Your task to perform on an android device: What's the news in Guyana? Image 0: 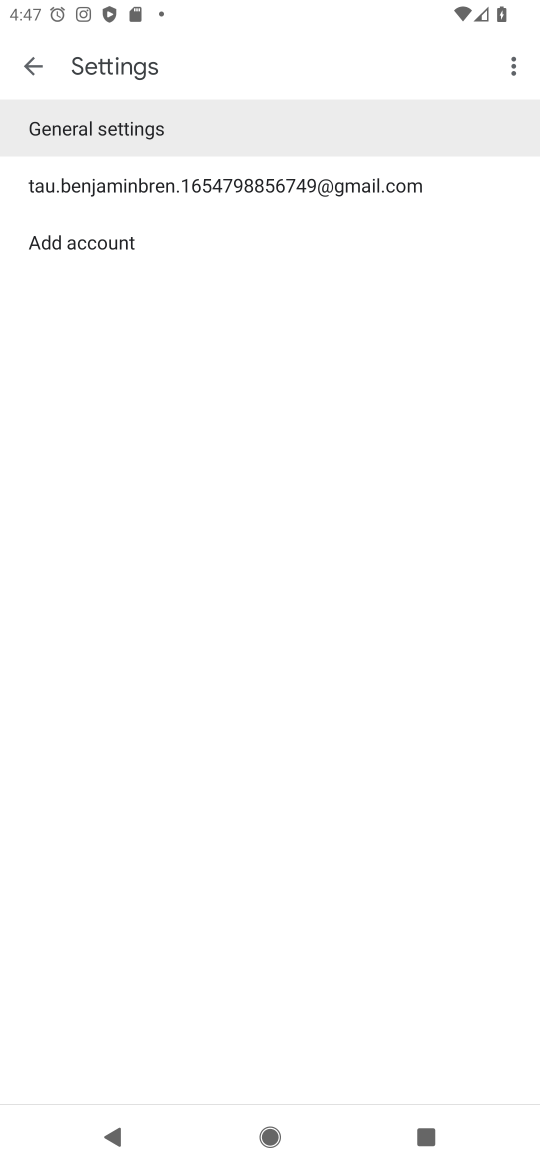
Step 0: press home button
Your task to perform on an android device: What's the news in Guyana? Image 1: 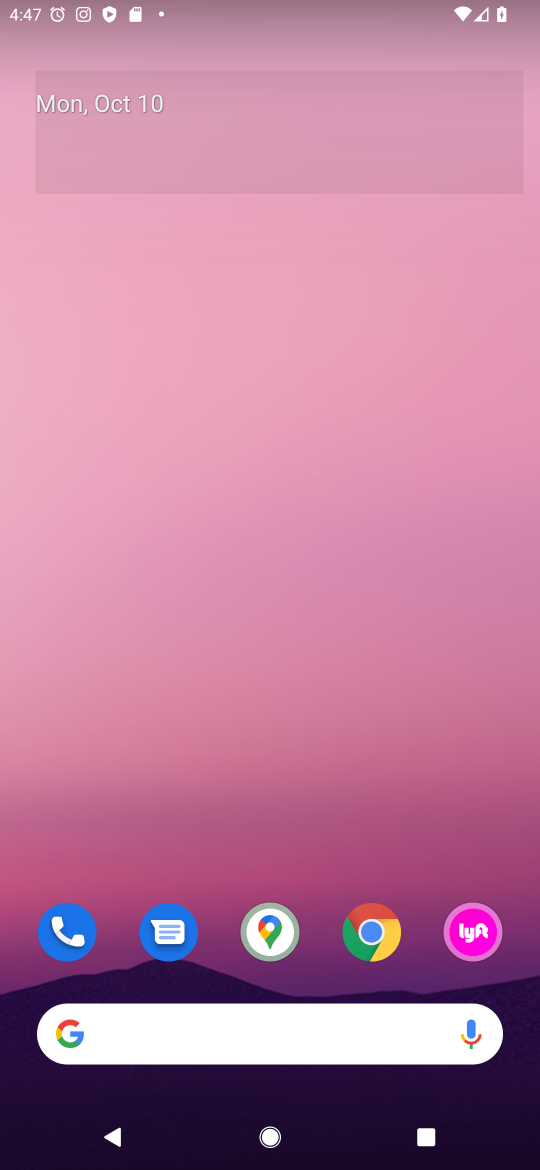
Step 1: click (269, 1044)
Your task to perform on an android device: What's the news in Guyana? Image 2: 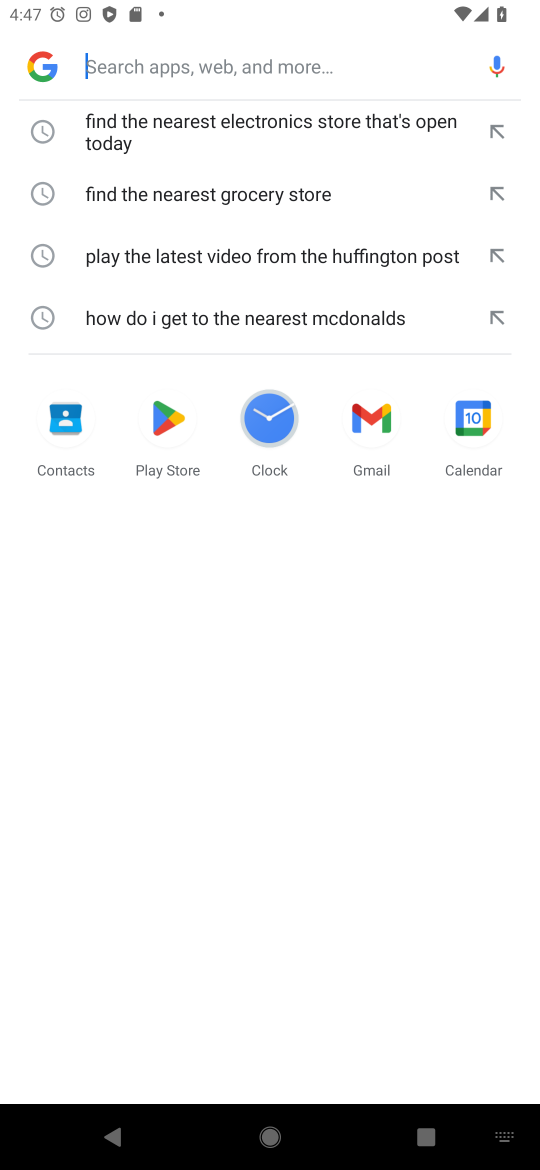
Step 2: press enter
Your task to perform on an android device: What's the news in Guyana? Image 3: 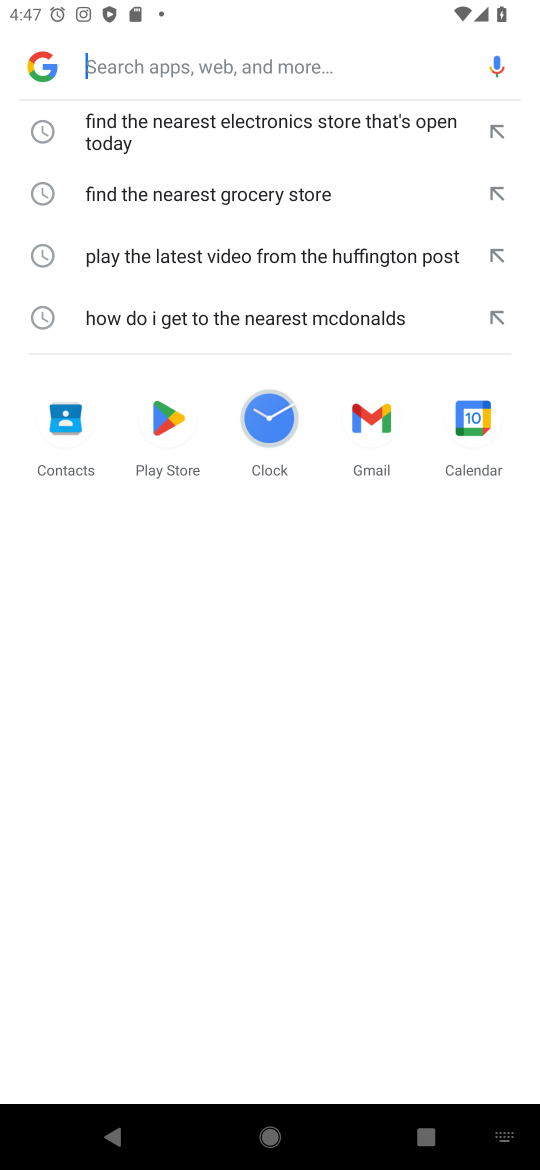
Step 3: type "What's the news in Guyana?"
Your task to perform on an android device: What's the news in Guyana? Image 4: 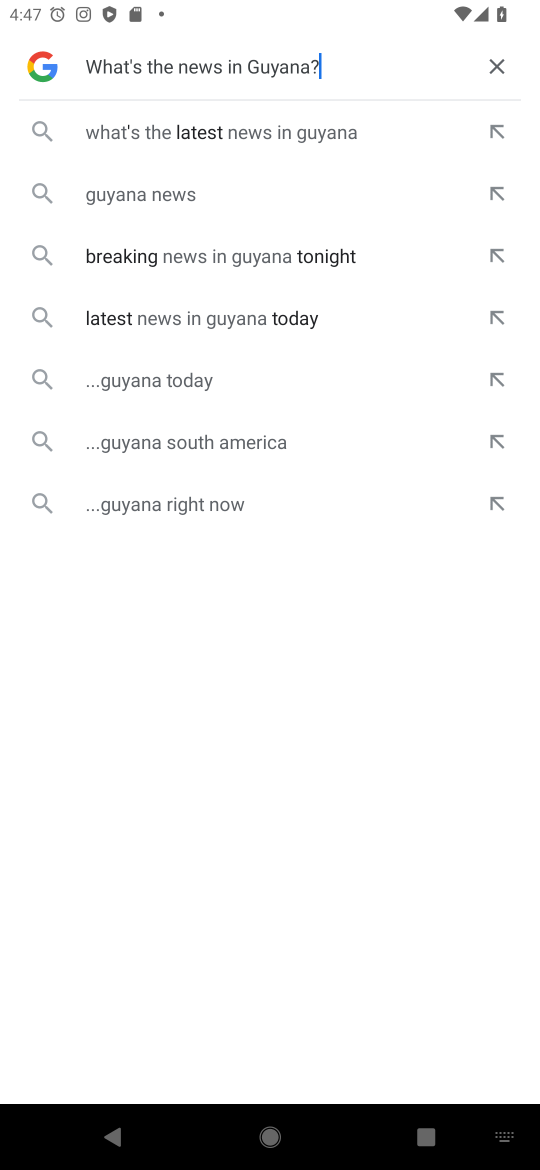
Step 4: press enter
Your task to perform on an android device: What's the news in Guyana? Image 5: 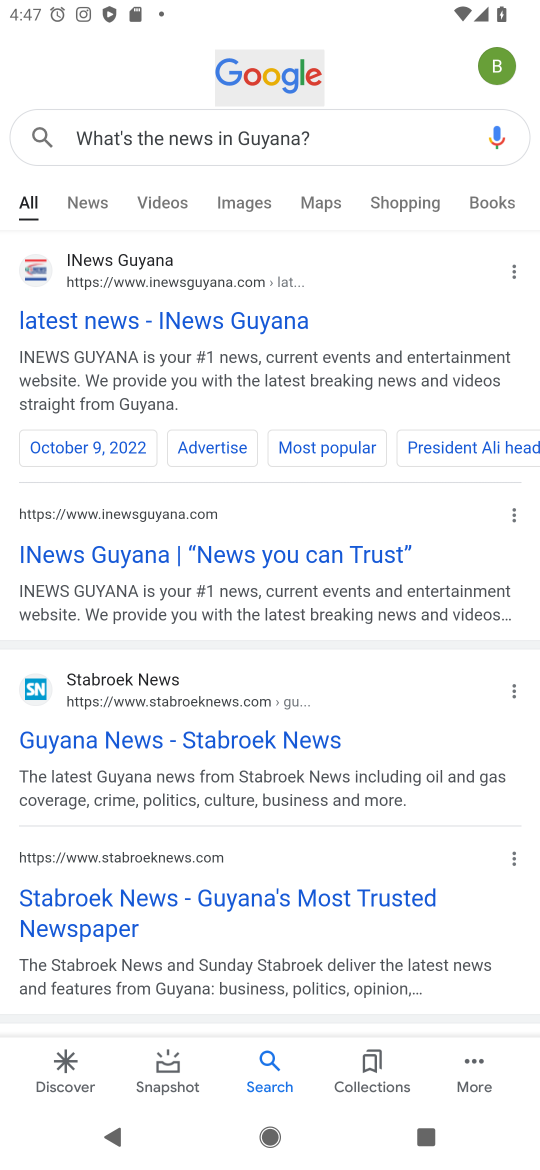
Step 5: click (269, 324)
Your task to perform on an android device: What's the news in Guyana? Image 6: 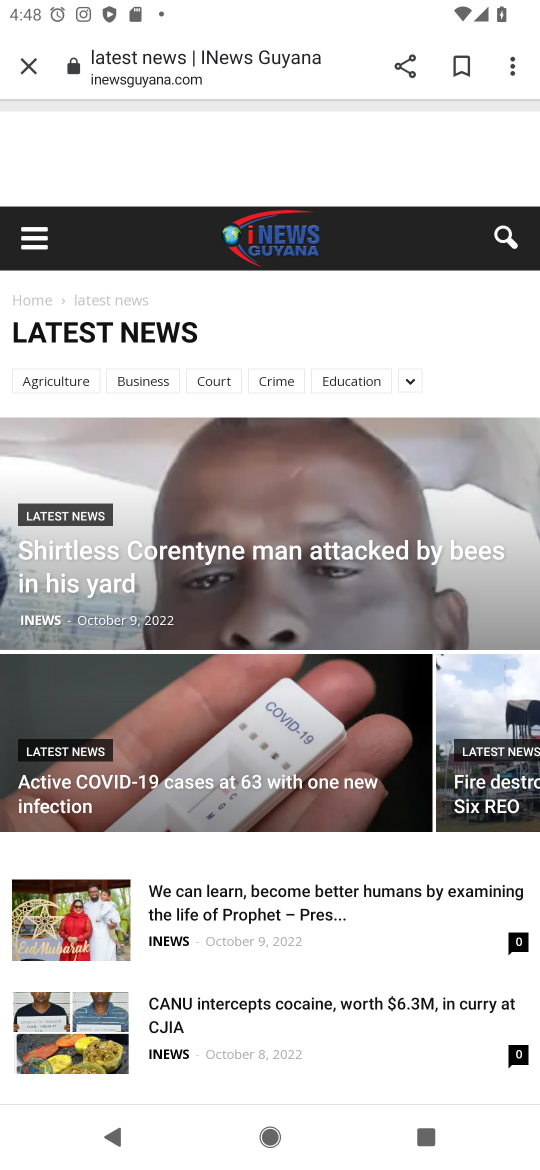
Step 6: task complete